Your task to perform on an android device: change the clock display to show seconds Image 0: 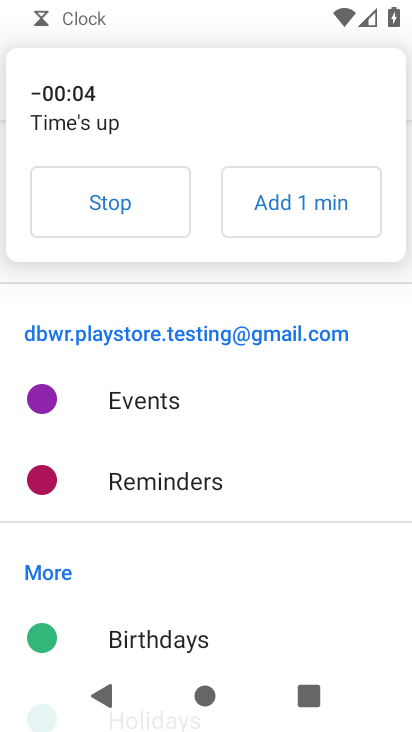
Step 0: press home button
Your task to perform on an android device: change the clock display to show seconds Image 1: 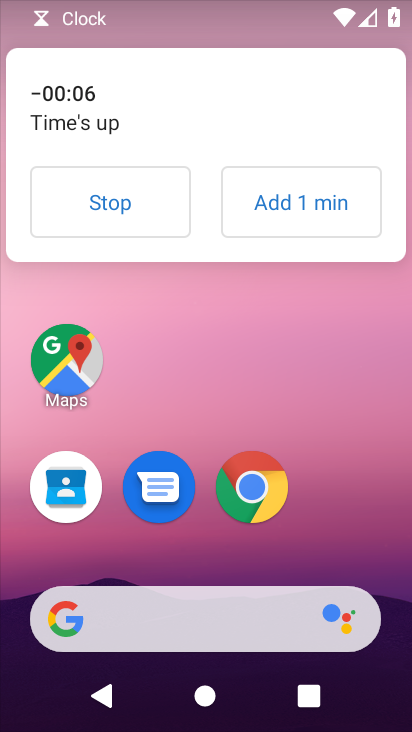
Step 1: click (174, 195)
Your task to perform on an android device: change the clock display to show seconds Image 2: 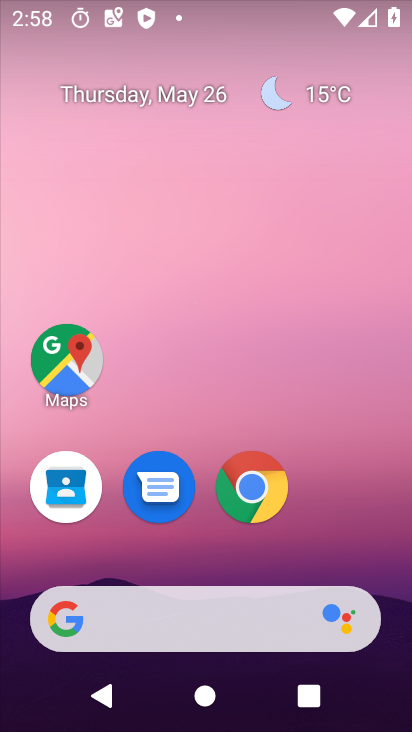
Step 2: drag from (219, 550) to (232, 206)
Your task to perform on an android device: change the clock display to show seconds Image 3: 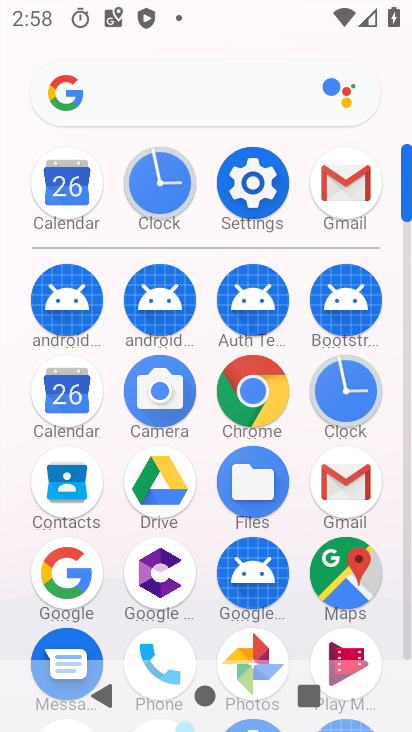
Step 3: click (185, 177)
Your task to perform on an android device: change the clock display to show seconds Image 4: 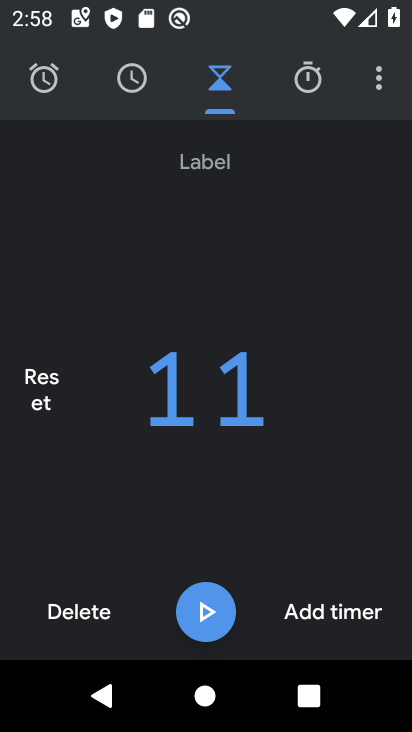
Step 4: click (371, 87)
Your task to perform on an android device: change the clock display to show seconds Image 5: 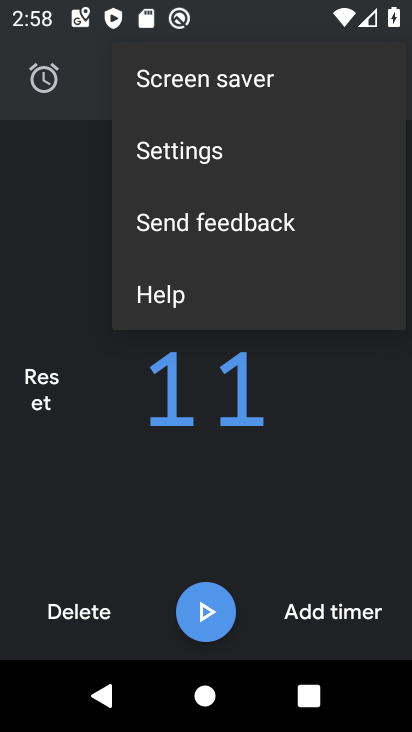
Step 5: click (276, 136)
Your task to perform on an android device: change the clock display to show seconds Image 6: 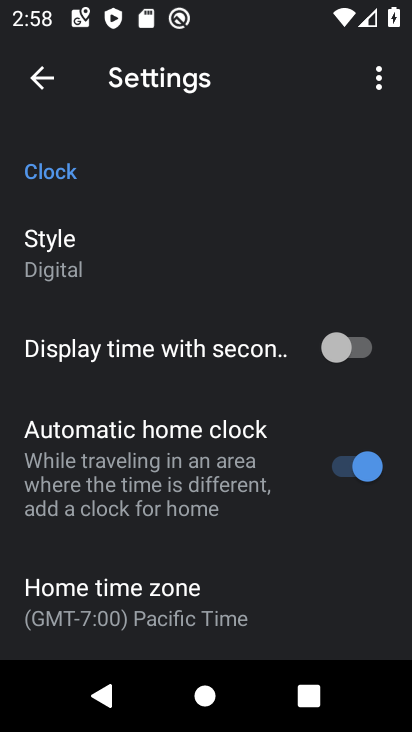
Step 6: click (352, 344)
Your task to perform on an android device: change the clock display to show seconds Image 7: 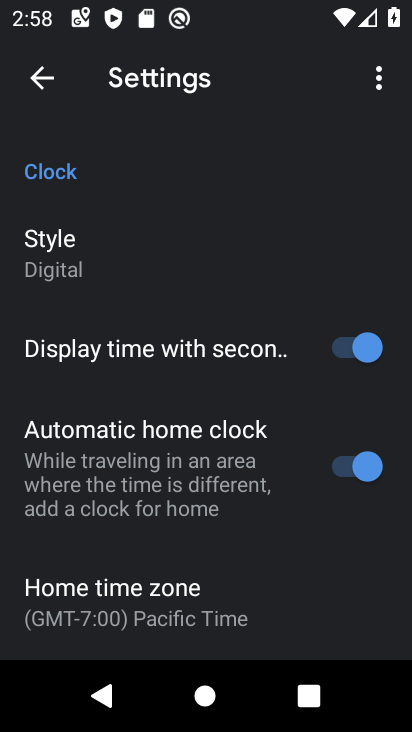
Step 7: task complete